Your task to perform on an android device: Open calendar and show me the third week of next month Image 0: 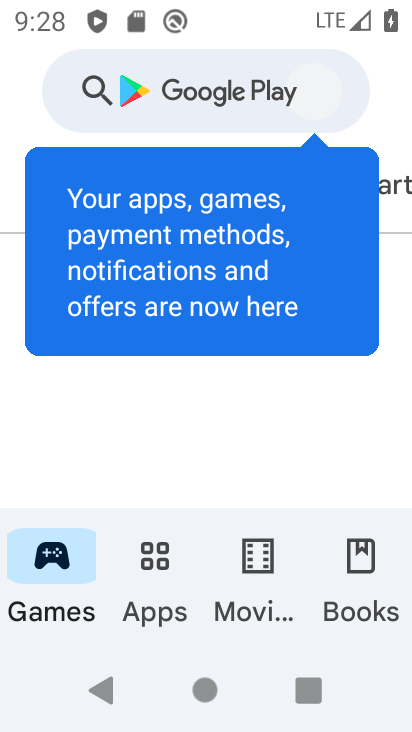
Step 0: press home button
Your task to perform on an android device: Open calendar and show me the third week of next month Image 1: 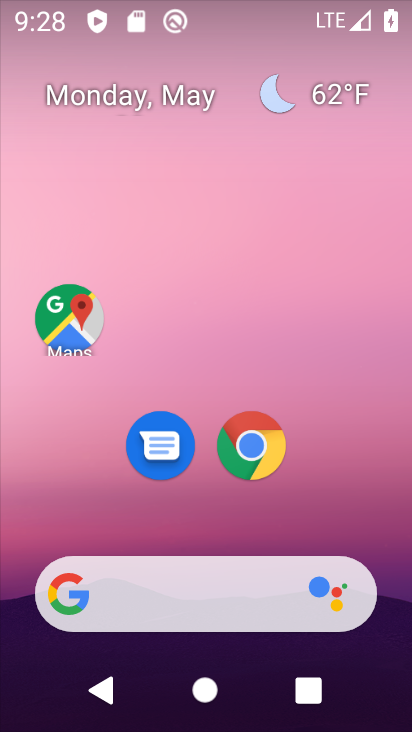
Step 1: drag from (390, 612) to (294, 27)
Your task to perform on an android device: Open calendar and show me the third week of next month Image 2: 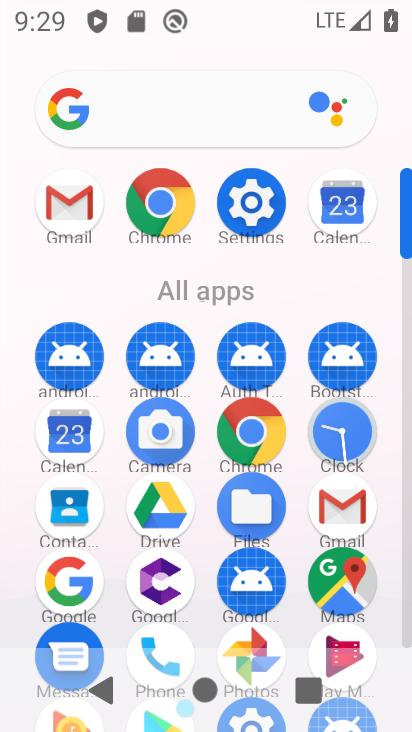
Step 2: click (53, 427)
Your task to perform on an android device: Open calendar and show me the third week of next month Image 3: 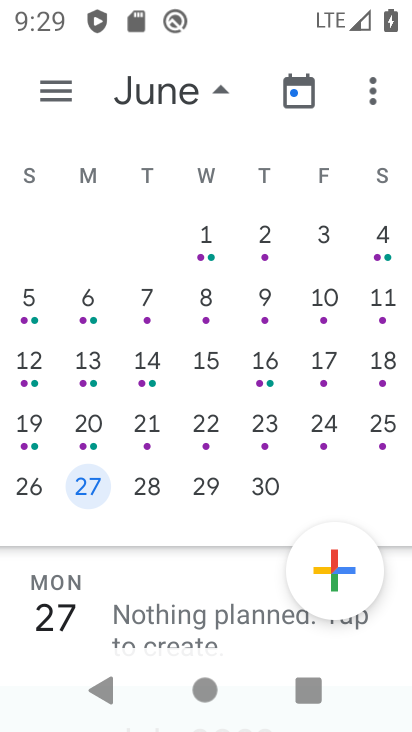
Step 3: drag from (362, 316) to (37, 323)
Your task to perform on an android device: Open calendar and show me the third week of next month Image 4: 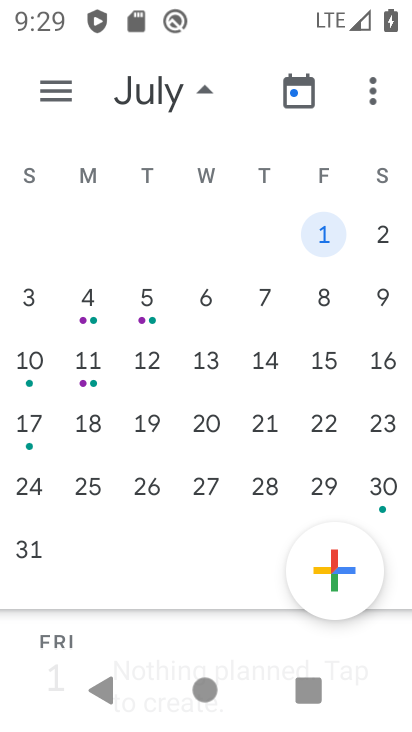
Step 4: click (41, 423)
Your task to perform on an android device: Open calendar and show me the third week of next month Image 5: 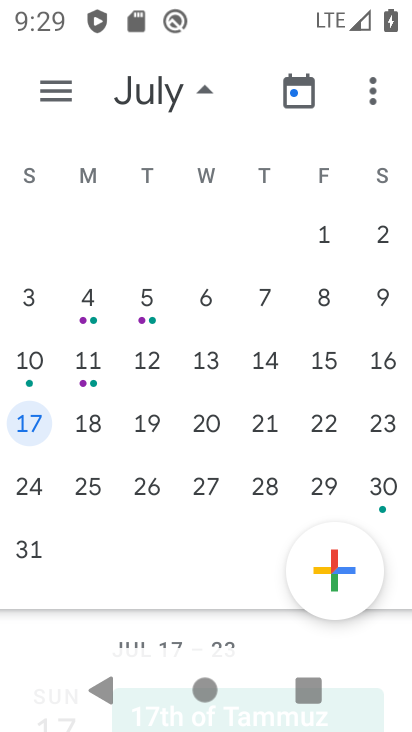
Step 5: task complete